Your task to perform on an android device: check storage Image 0: 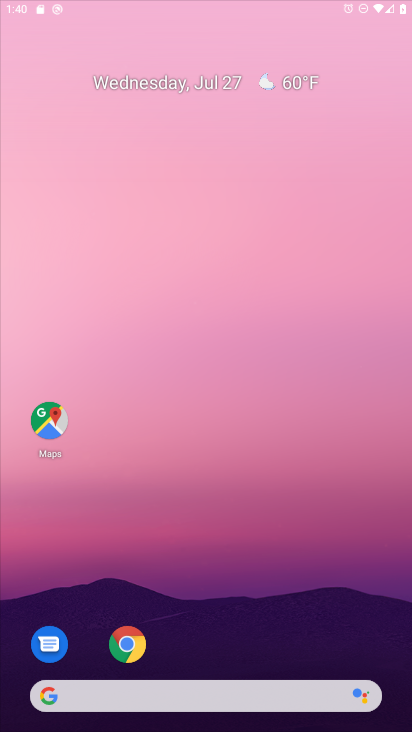
Step 0: drag from (200, 644) to (313, 0)
Your task to perform on an android device: check storage Image 1: 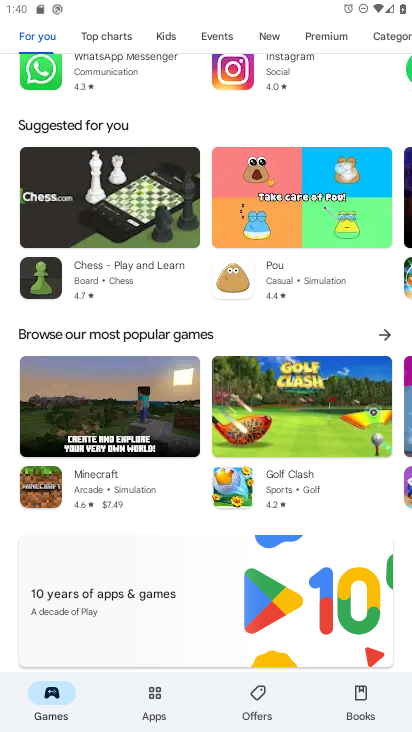
Step 1: press home button
Your task to perform on an android device: check storage Image 2: 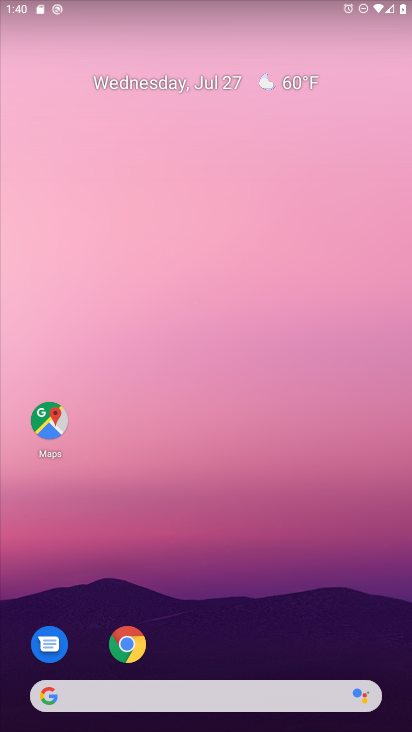
Step 2: drag from (179, 619) to (186, 107)
Your task to perform on an android device: check storage Image 3: 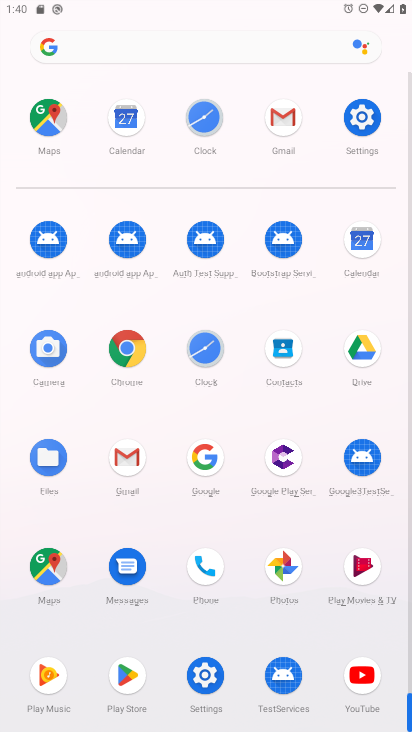
Step 3: click (206, 345)
Your task to perform on an android device: check storage Image 4: 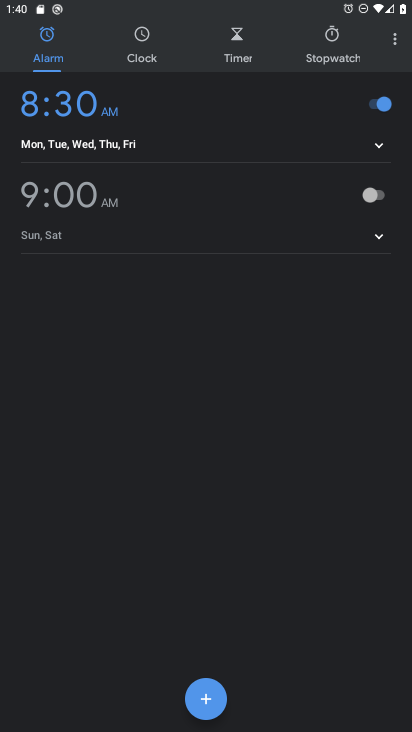
Step 4: press home button
Your task to perform on an android device: check storage Image 5: 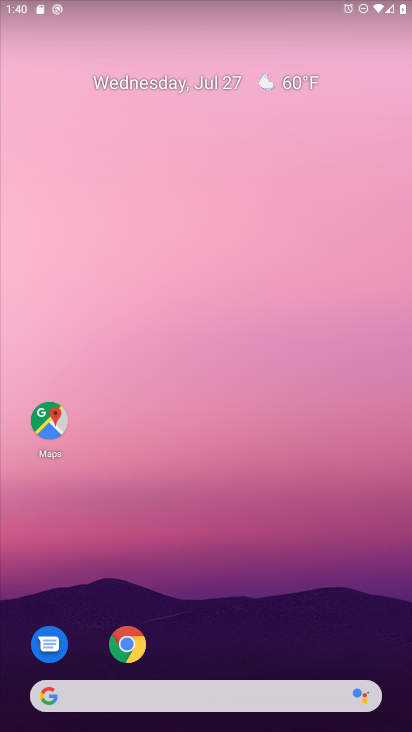
Step 5: drag from (194, 556) to (196, 170)
Your task to perform on an android device: check storage Image 6: 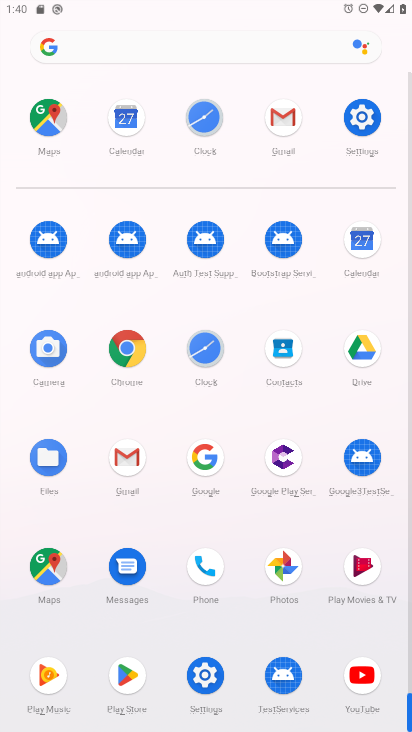
Step 6: click (209, 677)
Your task to perform on an android device: check storage Image 7: 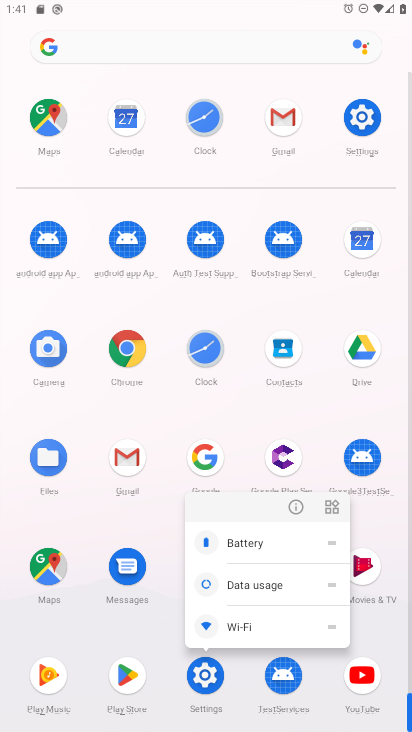
Step 7: click (295, 500)
Your task to perform on an android device: check storage Image 8: 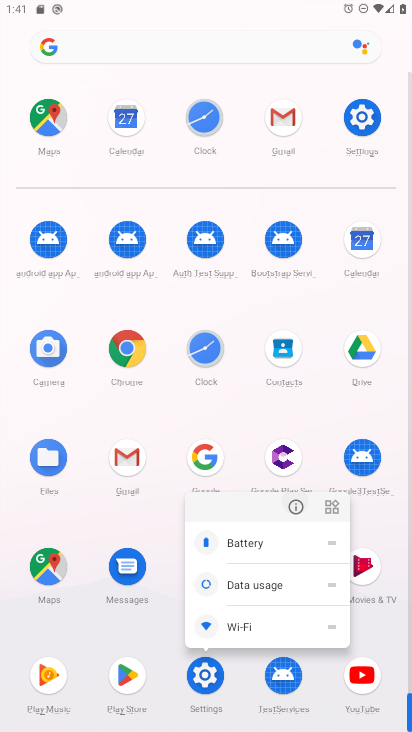
Step 8: click (295, 500)
Your task to perform on an android device: check storage Image 9: 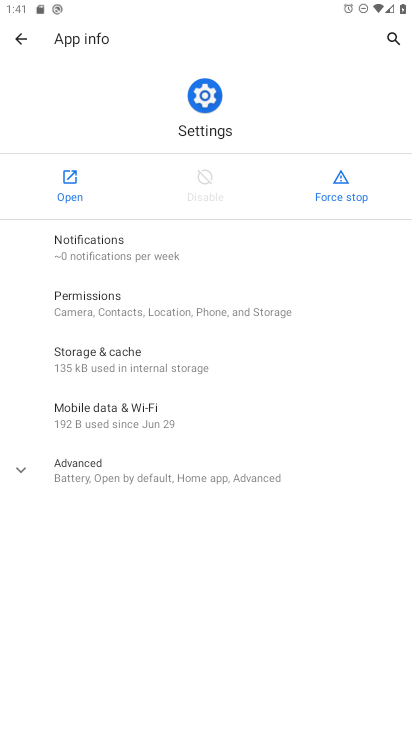
Step 9: click (66, 191)
Your task to perform on an android device: check storage Image 10: 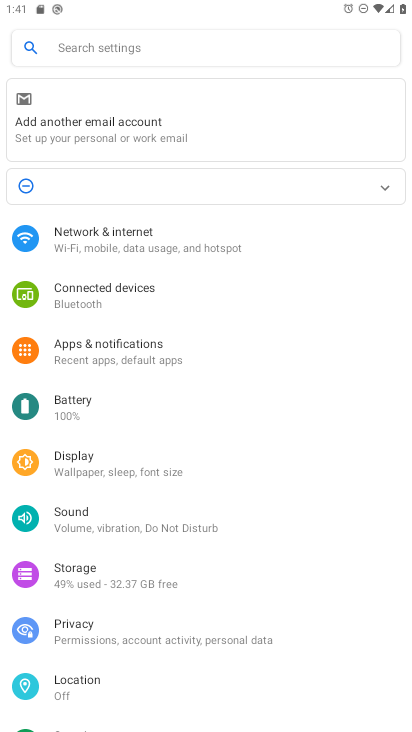
Step 10: click (107, 571)
Your task to perform on an android device: check storage Image 11: 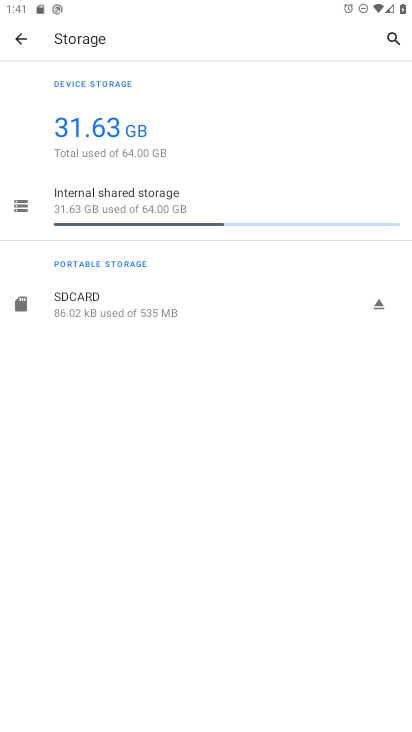
Step 11: task complete